Your task to perform on an android device: change alarm snooze length Image 0: 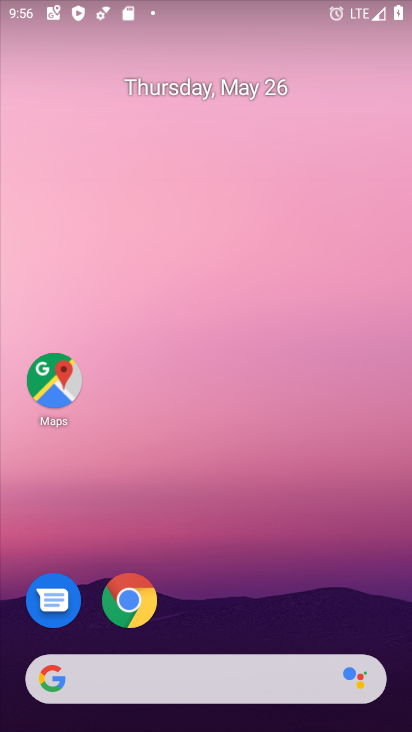
Step 0: drag from (275, 571) to (285, 110)
Your task to perform on an android device: change alarm snooze length Image 1: 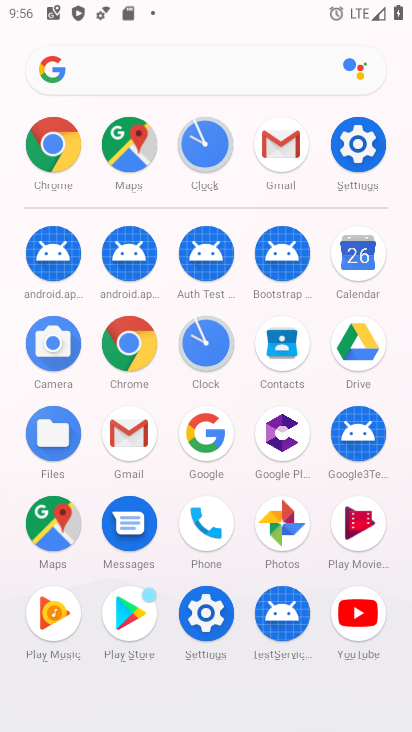
Step 1: click (204, 354)
Your task to perform on an android device: change alarm snooze length Image 2: 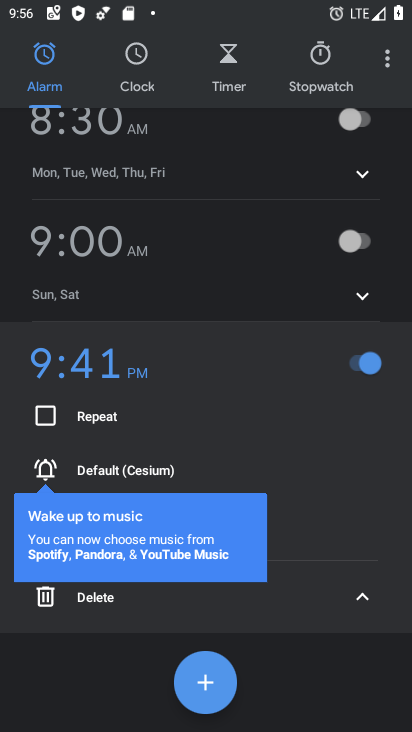
Step 2: drag from (386, 52) to (246, 124)
Your task to perform on an android device: change alarm snooze length Image 3: 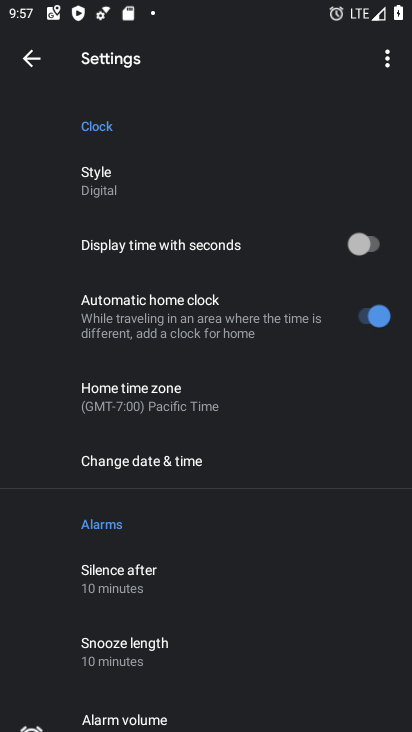
Step 3: click (156, 652)
Your task to perform on an android device: change alarm snooze length Image 4: 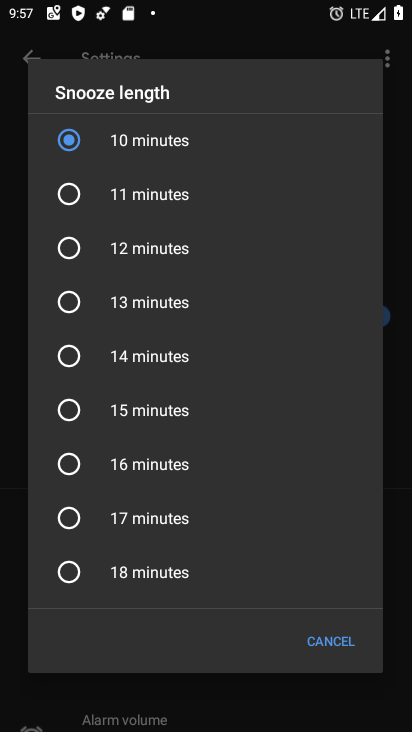
Step 4: click (158, 195)
Your task to perform on an android device: change alarm snooze length Image 5: 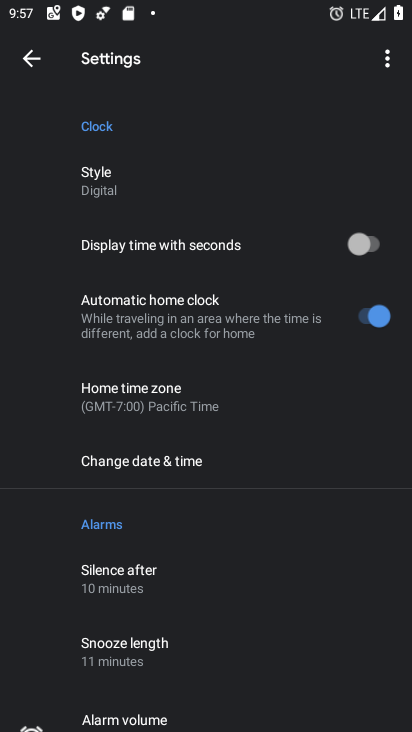
Step 5: task complete